Your task to perform on an android device: change the clock display to show seconds Image 0: 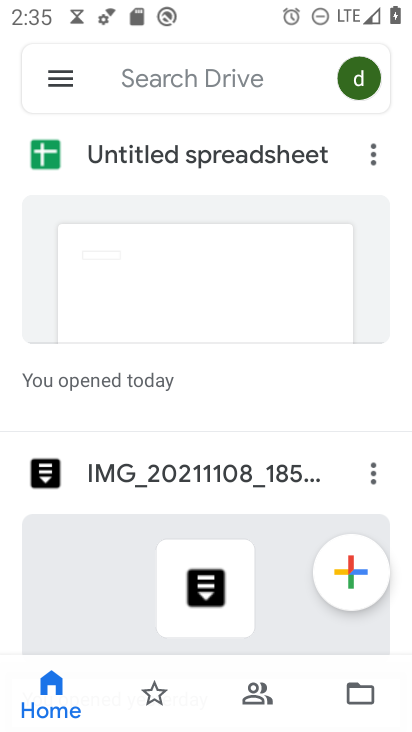
Step 0: press home button
Your task to perform on an android device: change the clock display to show seconds Image 1: 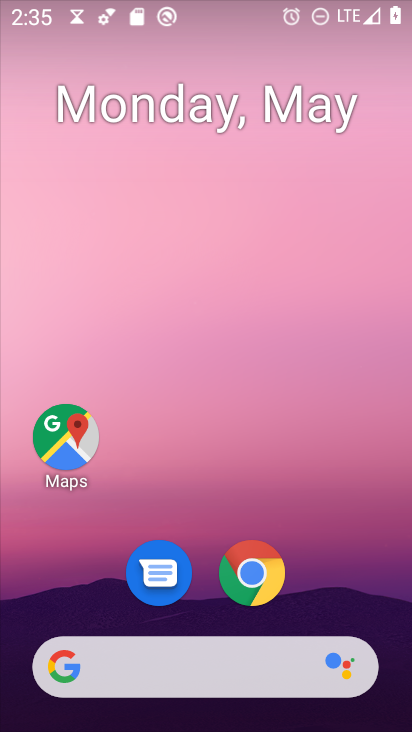
Step 1: drag from (367, 642) to (301, 4)
Your task to perform on an android device: change the clock display to show seconds Image 2: 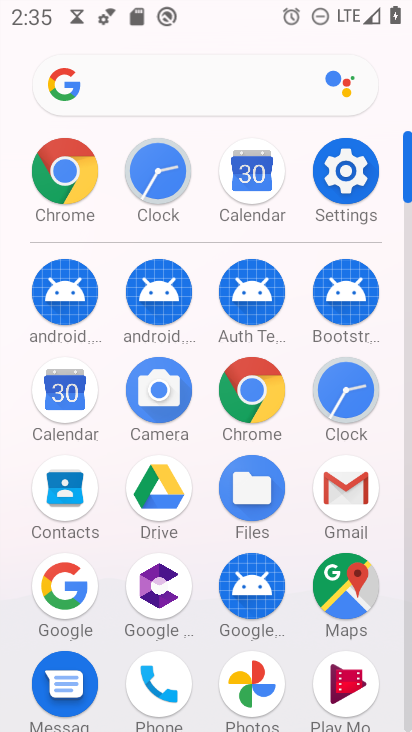
Step 2: click (341, 391)
Your task to perform on an android device: change the clock display to show seconds Image 3: 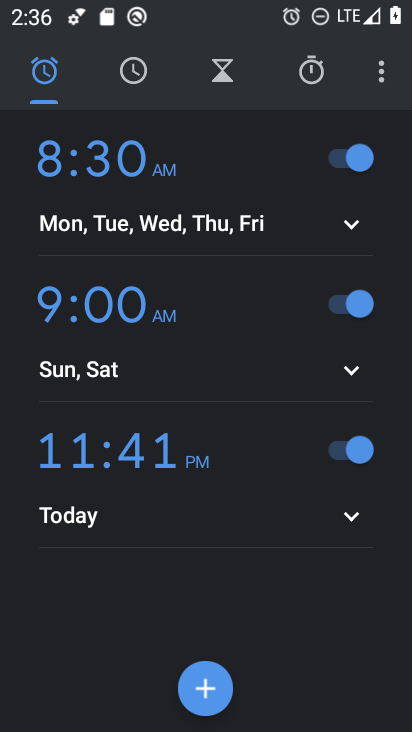
Step 3: click (376, 62)
Your task to perform on an android device: change the clock display to show seconds Image 4: 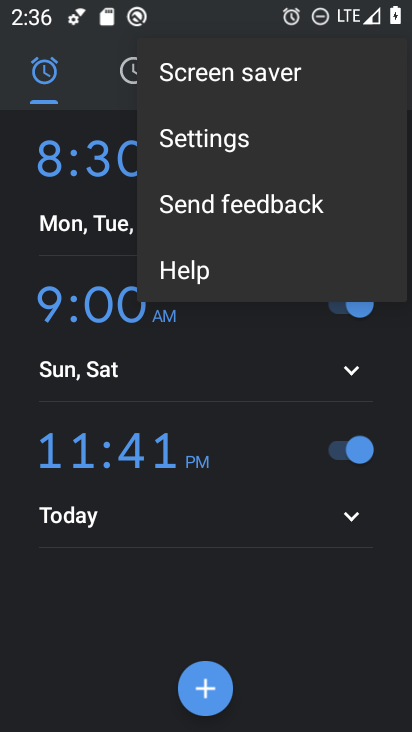
Step 4: click (225, 140)
Your task to perform on an android device: change the clock display to show seconds Image 5: 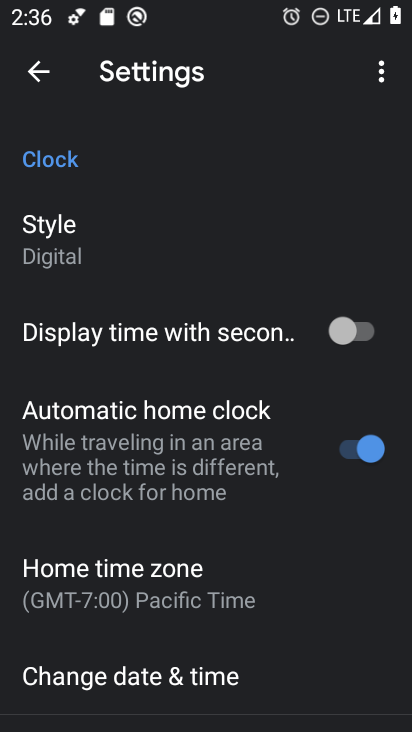
Step 5: click (357, 318)
Your task to perform on an android device: change the clock display to show seconds Image 6: 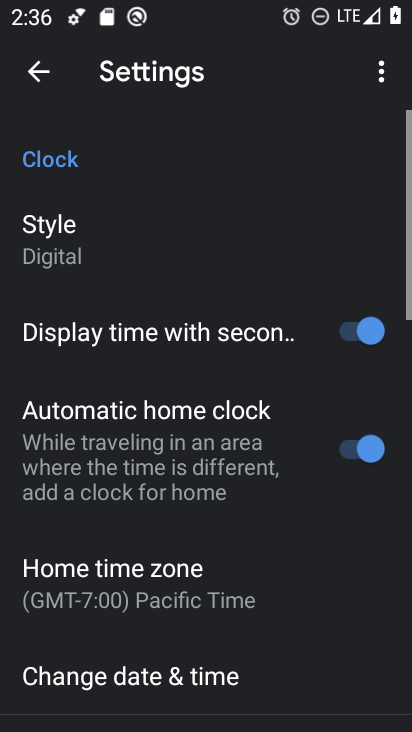
Step 6: task complete